Your task to perform on an android device: set the stopwatch Image 0: 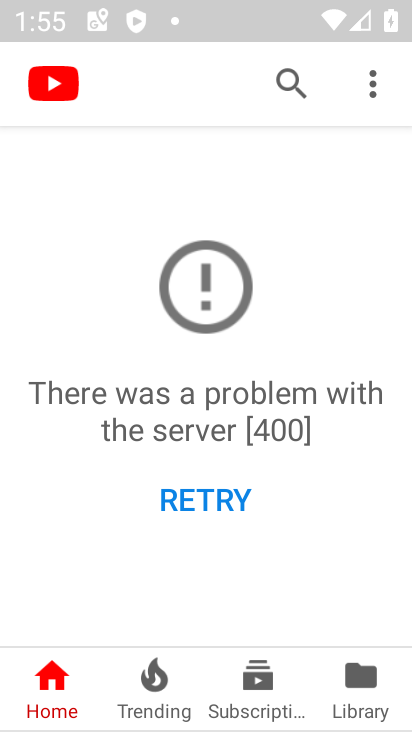
Step 0: press home button
Your task to perform on an android device: set the stopwatch Image 1: 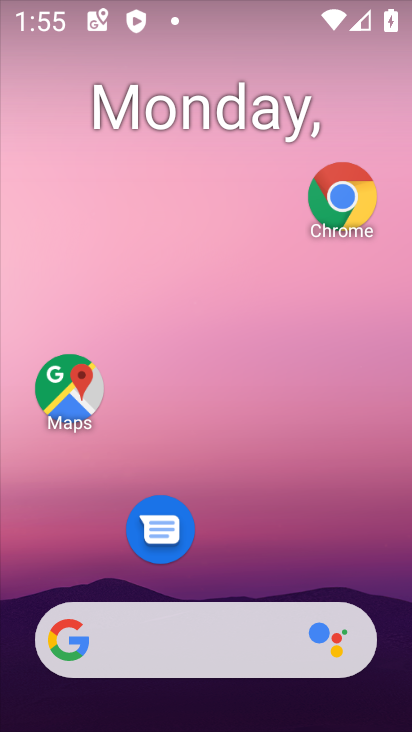
Step 1: drag from (194, 580) to (186, 7)
Your task to perform on an android device: set the stopwatch Image 2: 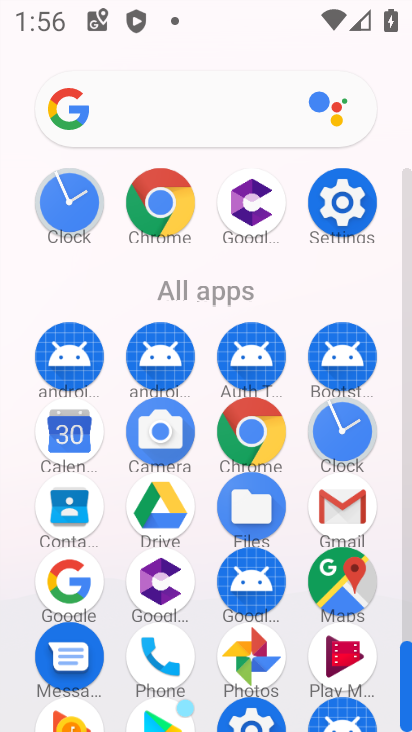
Step 2: click (341, 418)
Your task to perform on an android device: set the stopwatch Image 3: 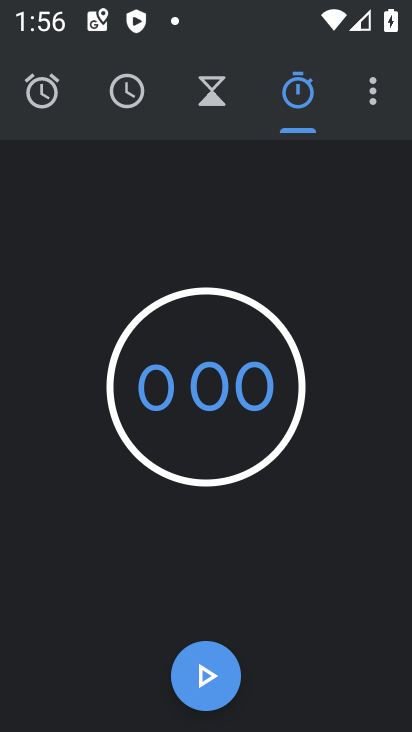
Step 3: click (218, 678)
Your task to perform on an android device: set the stopwatch Image 4: 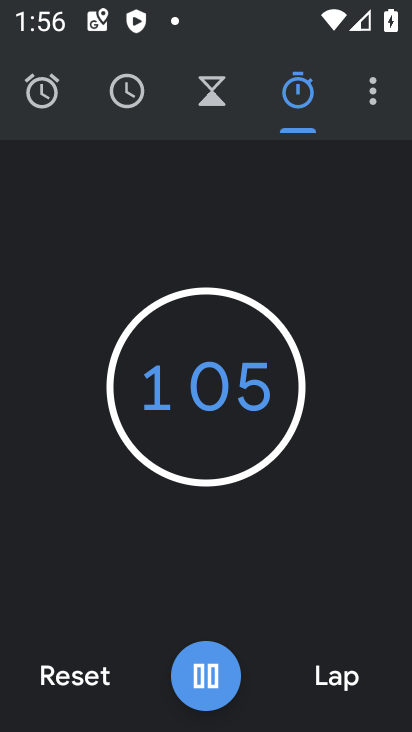
Step 4: click (218, 678)
Your task to perform on an android device: set the stopwatch Image 5: 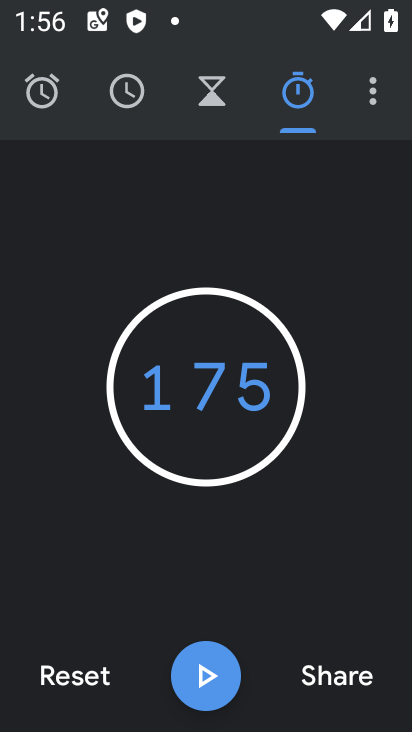
Step 5: task complete